Your task to perform on an android device: Find coffee shops on Maps Image 0: 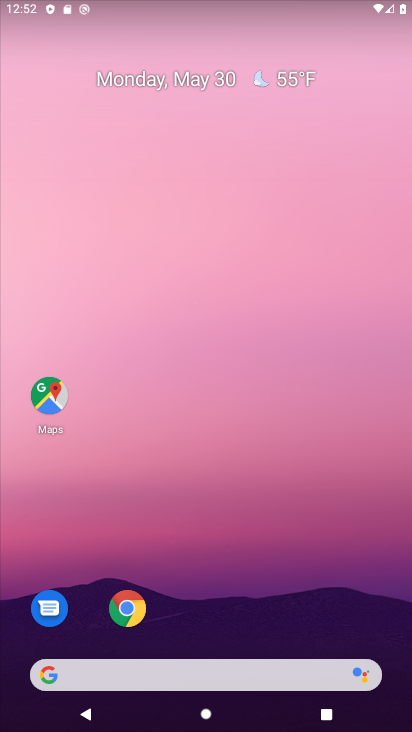
Step 0: click (41, 406)
Your task to perform on an android device: Find coffee shops on Maps Image 1: 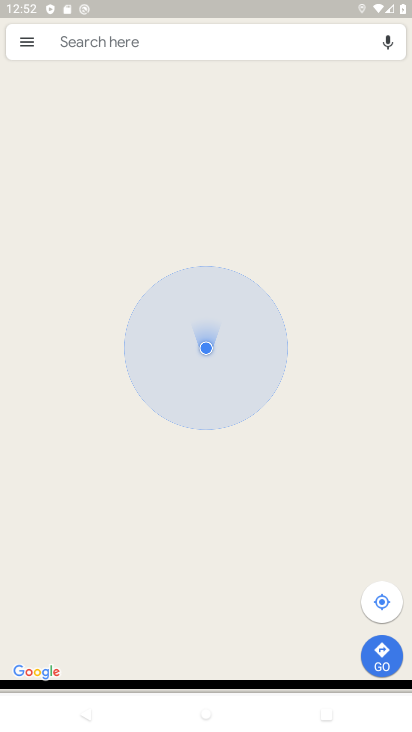
Step 1: click (154, 40)
Your task to perform on an android device: Find coffee shops on Maps Image 2: 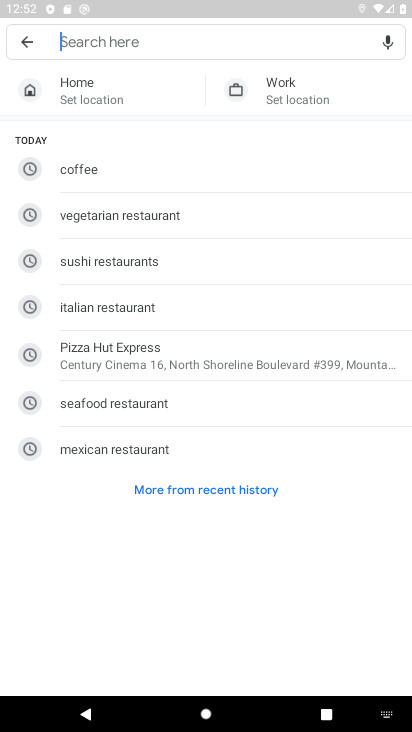
Step 2: type "Coffee shops"
Your task to perform on an android device: Find coffee shops on Maps Image 3: 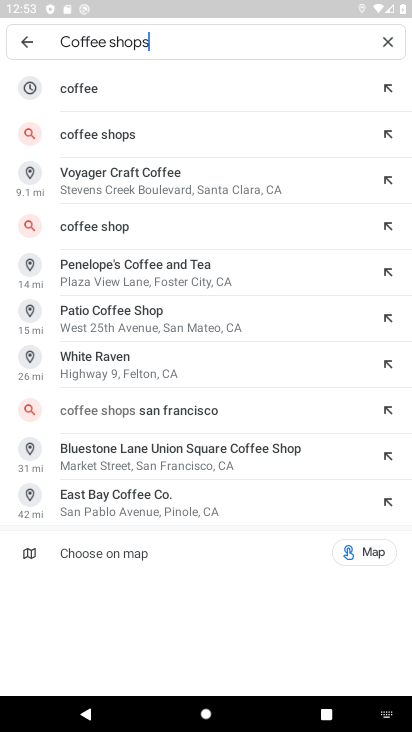
Step 3: click (158, 133)
Your task to perform on an android device: Find coffee shops on Maps Image 4: 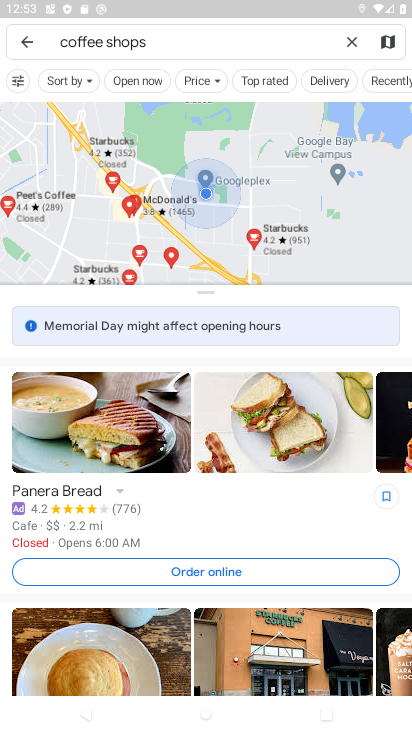
Step 4: task complete